Your task to perform on an android device: change the clock style Image 0: 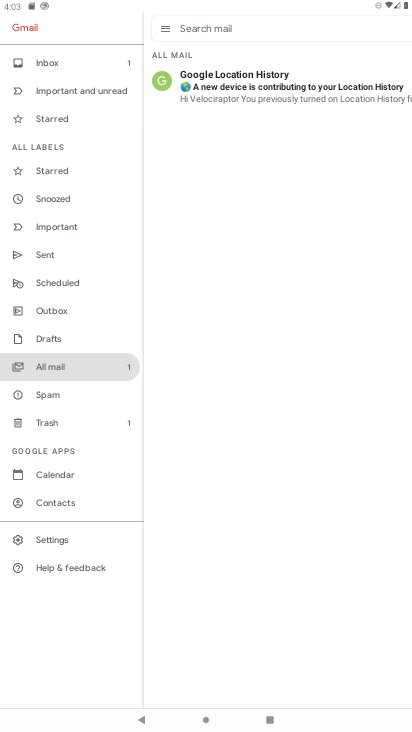
Step 0: press home button
Your task to perform on an android device: change the clock style Image 1: 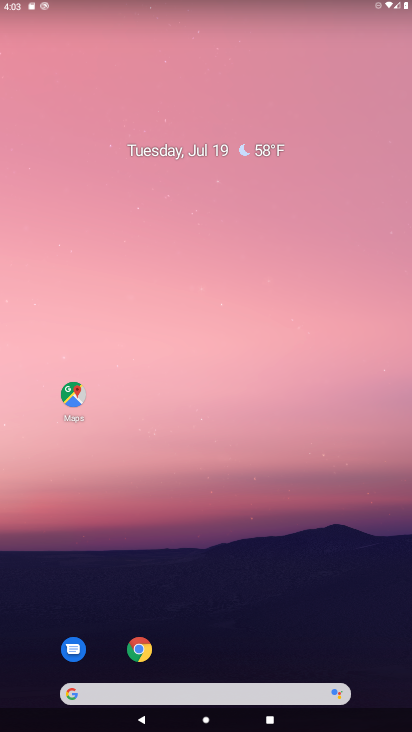
Step 1: drag from (234, 718) to (230, 209)
Your task to perform on an android device: change the clock style Image 2: 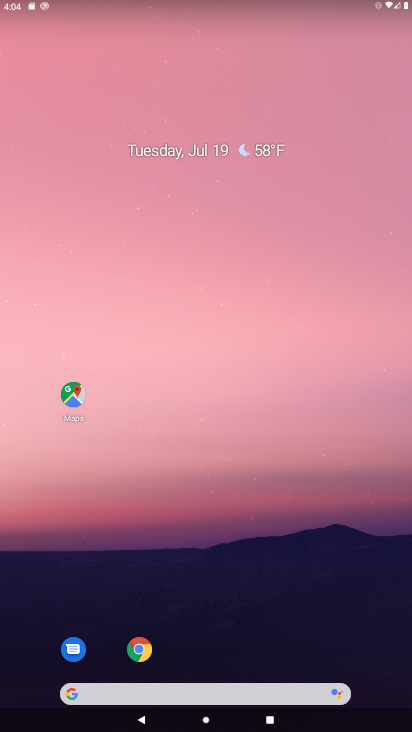
Step 2: drag from (234, 720) to (234, 119)
Your task to perform on an android device: change the clock style Image 3: 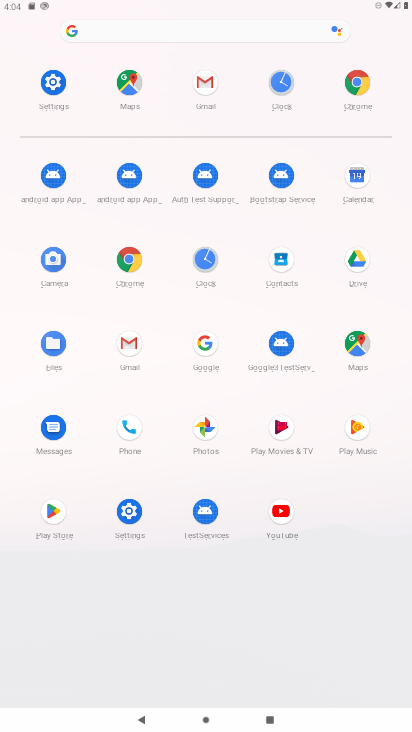
Step 3: click (130, 513)
Your task to perform on an android device: change the clock style Image 4: 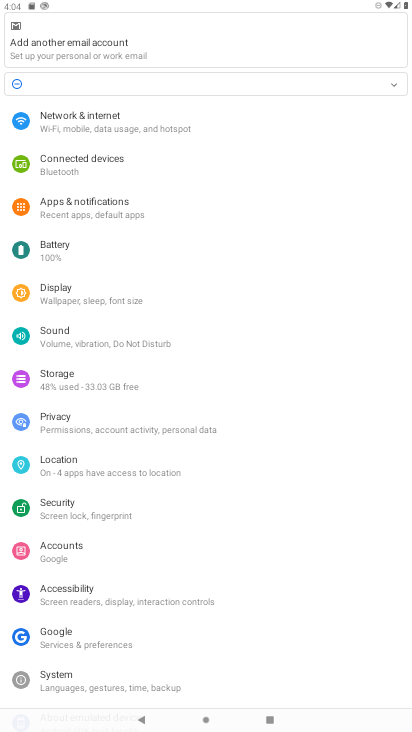
Step 4: press home button
Your task to perform on an android device: change the clock style Image 5: 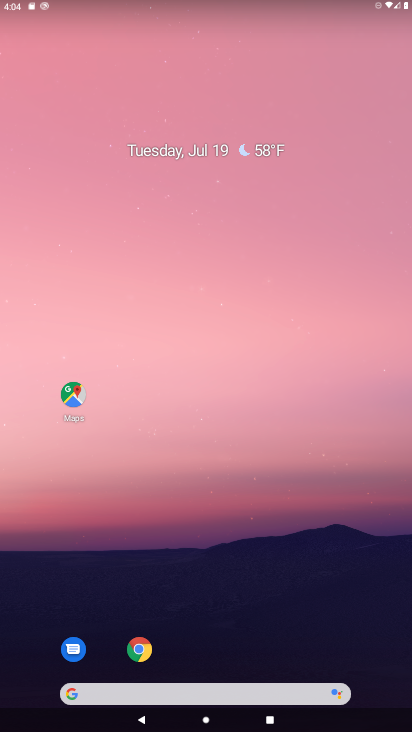
Step 5: click (227, 712)
Your task to perform on an android device: change the clock style Image 6: 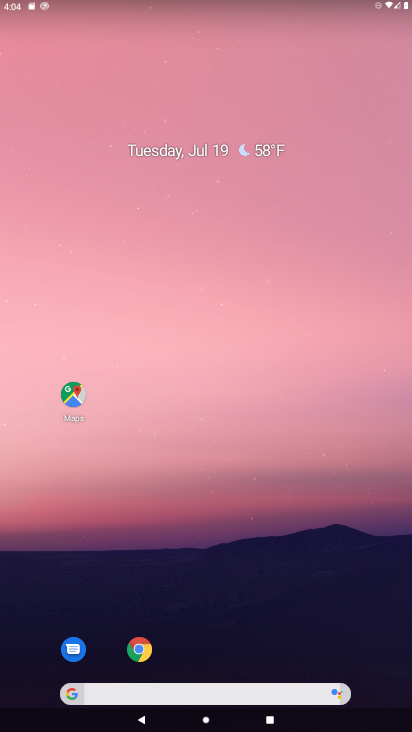
Step 6: drag from (192, 145) to (189, 101)
Your task to perform on an android device: change the clock style Image 7: 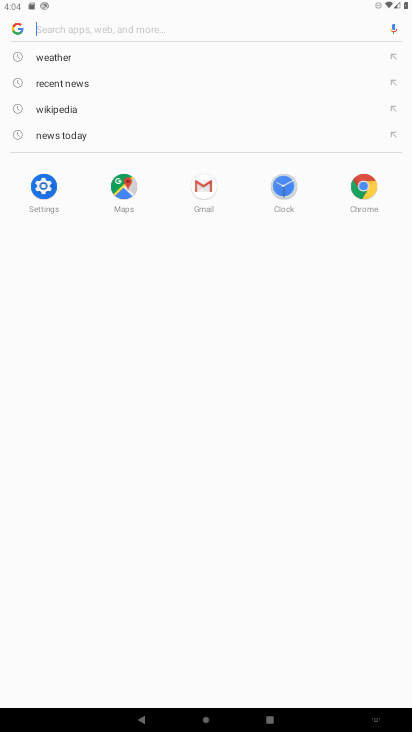
Step 7: press home button
Your task to perform on an android device: change the clock style Image 8: 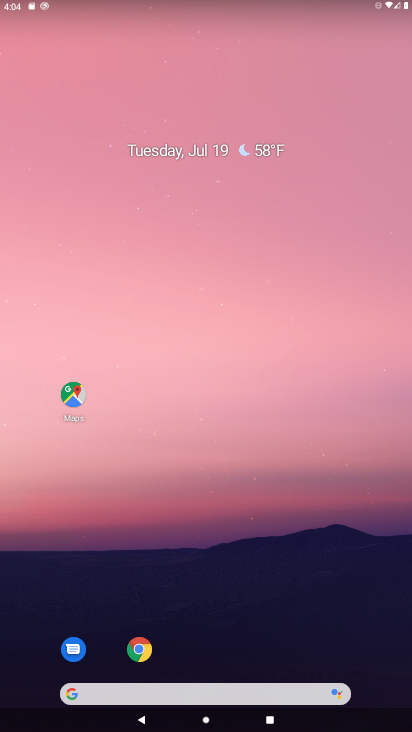
Step 8: drag from (232, 695) to (240, 75)
Your task to perform on an android device: change the clock style Image 9: 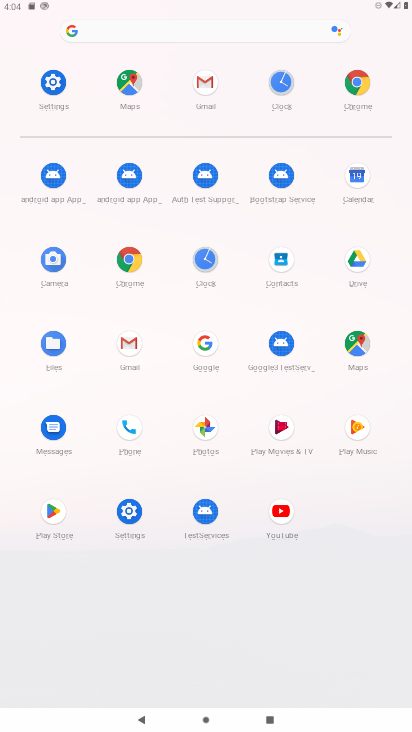
Step 9: click (208, 263)
Your task to perform on an android device: change the clock style Image 10: 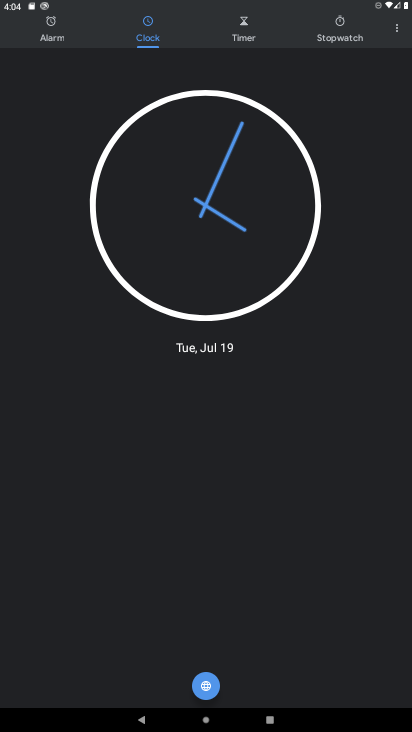
Step 10: click (395, 33)
Your task to perform on an android device: change the clock style Image 11: 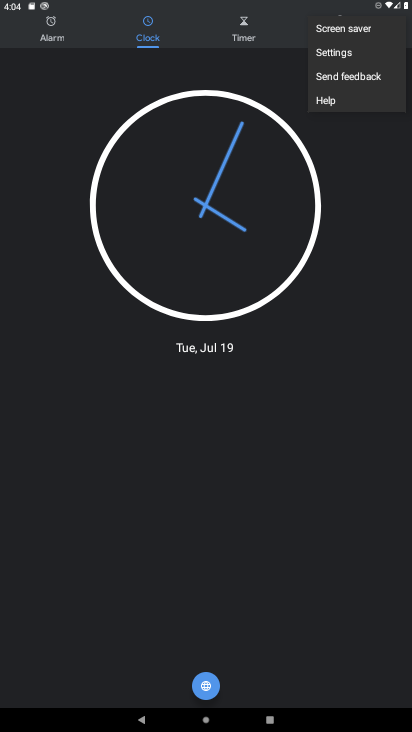
Step 11: click (337, 54)
Your task to perform on an android device: change the clock style Image 12: 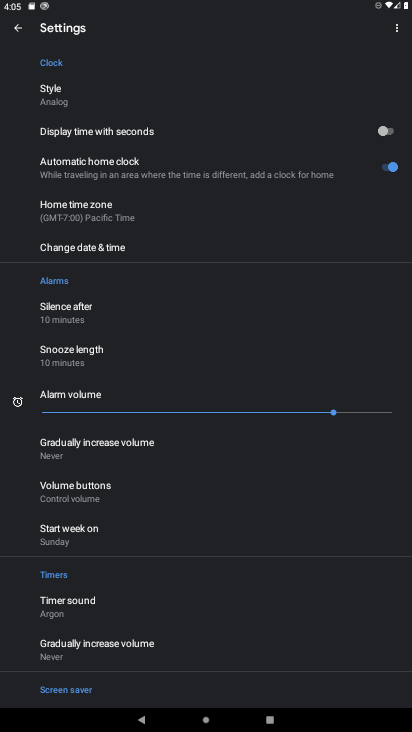
Step 12: click (50, 98)
Your task to perform on an android device: change the clock style Image 13: 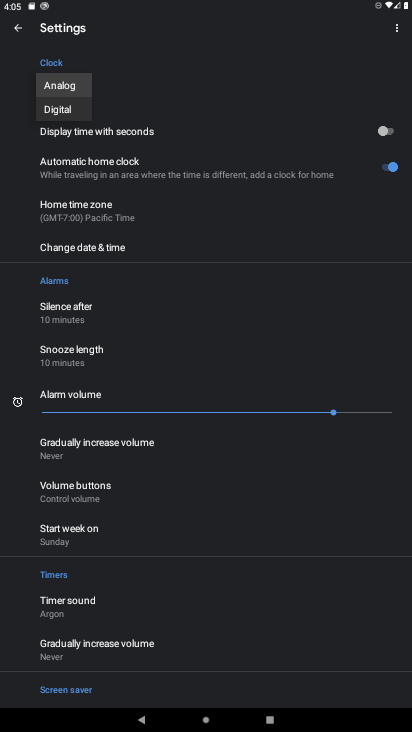
Step 13: click (61, 109)
Your task to perform on an android device: change the clock style Image 14: 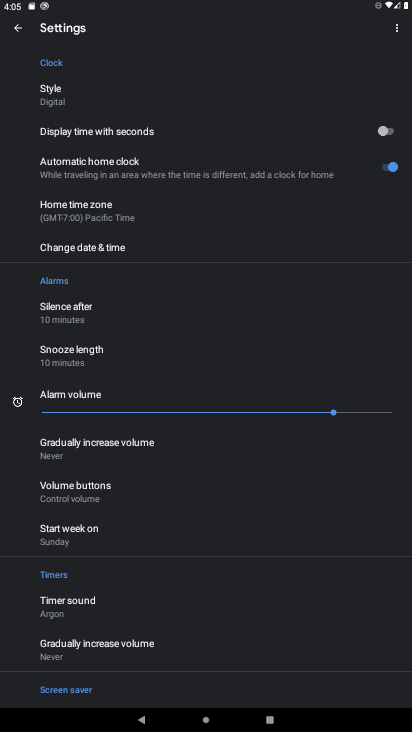
Step 14: task complete